Your task to perform on an android device: Show me popular videos on Youtube Image 0: 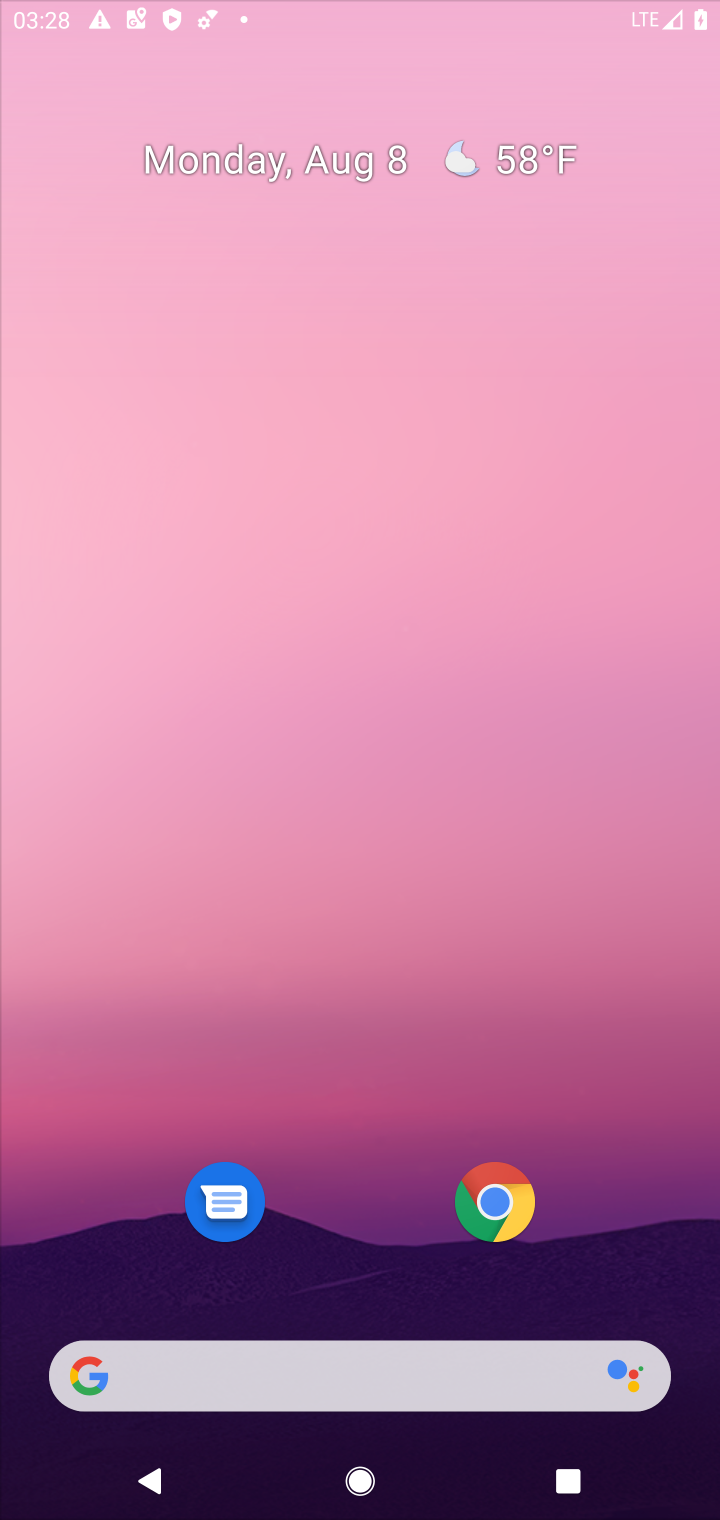
Step 0: press back button
Your task to perform on an android device: Show me popular videos on Youtube Image 1: 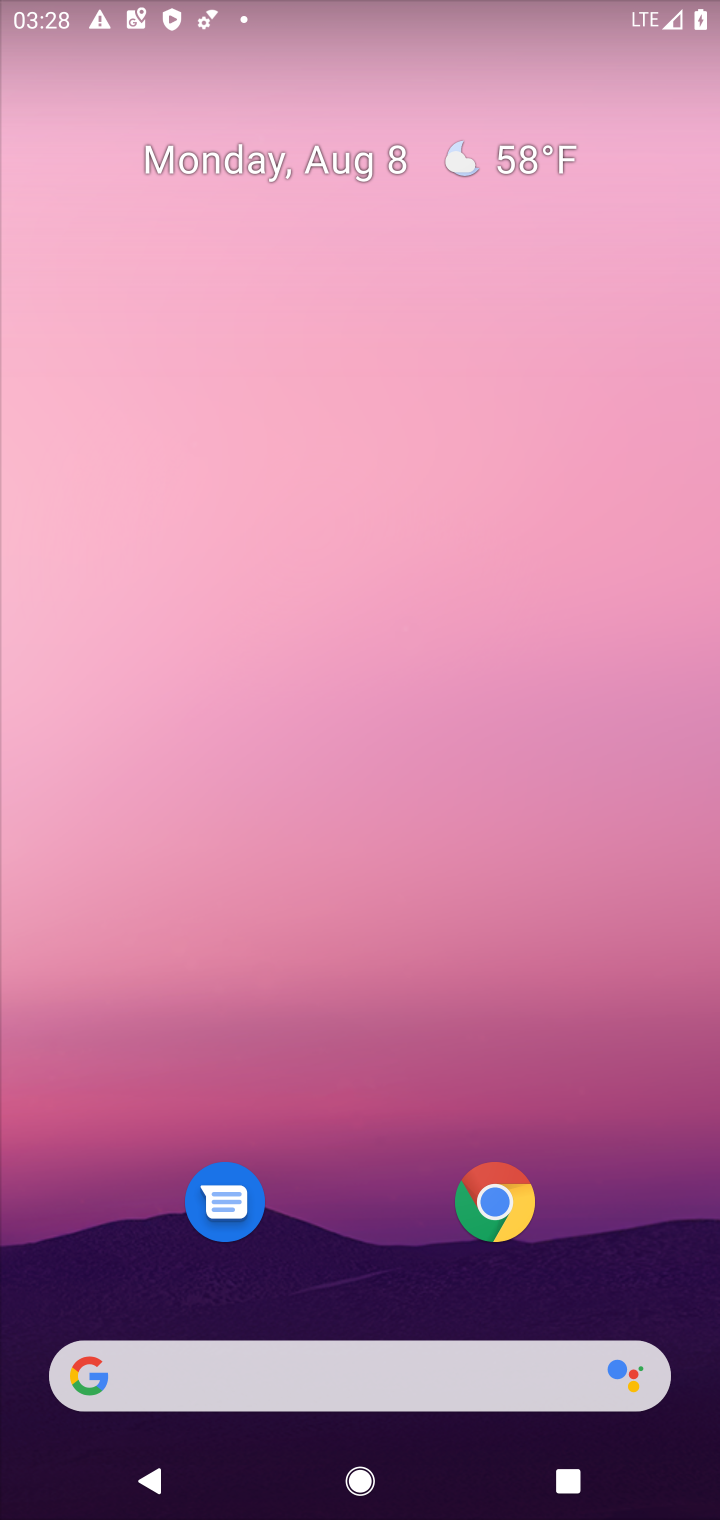
Step 1: click (314, 172)
Your task to perform on an android device: Show me popular videos on Youtube Image 2: 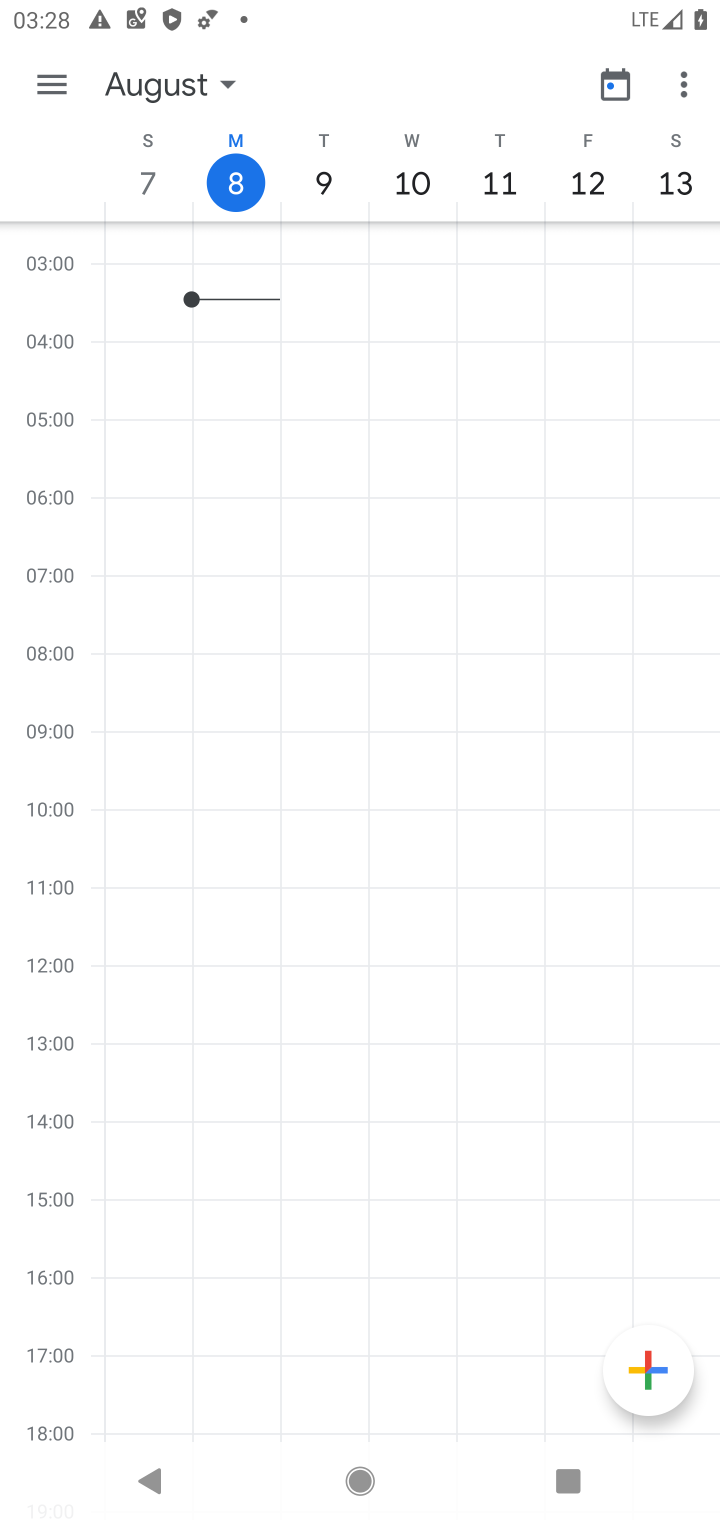
Step 2: click (336, 289)
Your task to perform on an android device: Show me popular videos on Youtube Image 3: 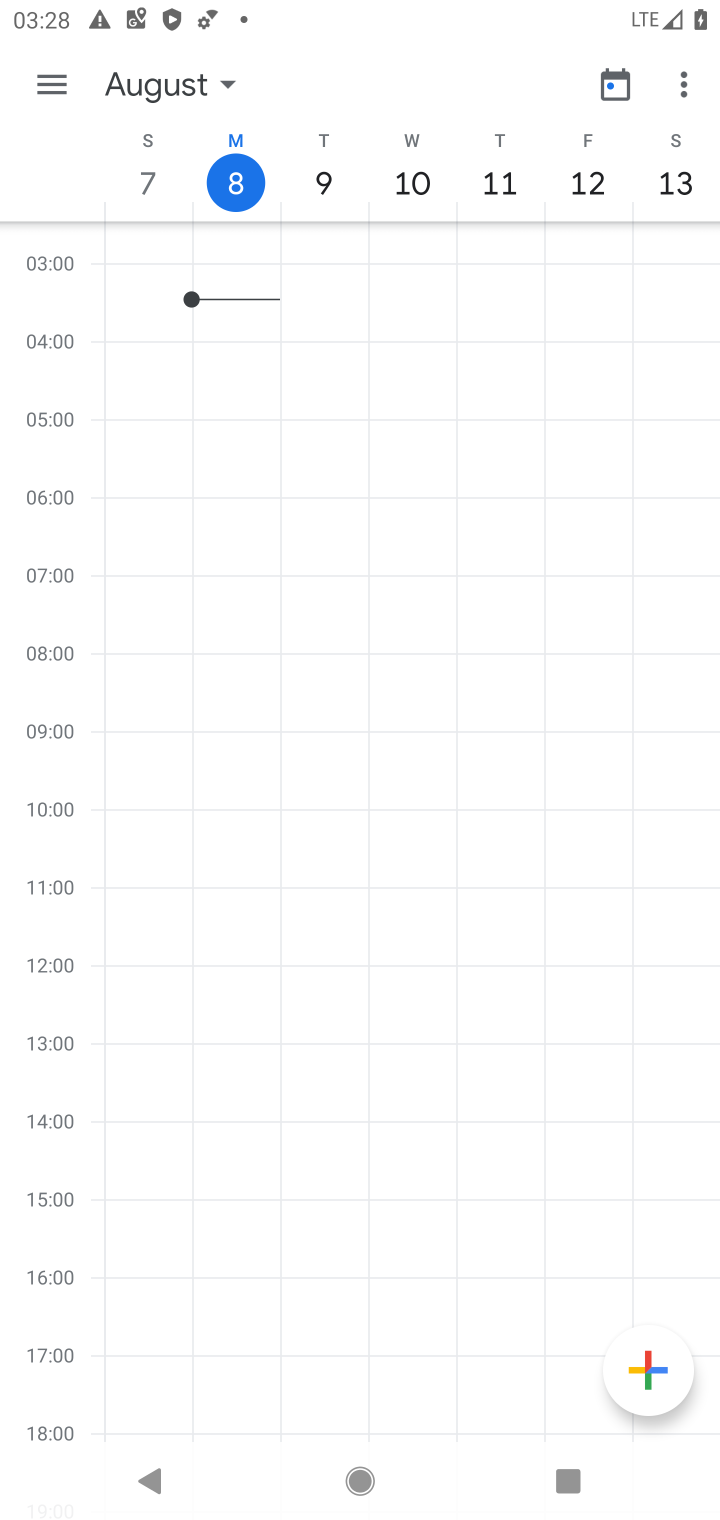
Step 3: press home button
Your task to perform on an android device: Show me popular videos on Youtube Image 4: 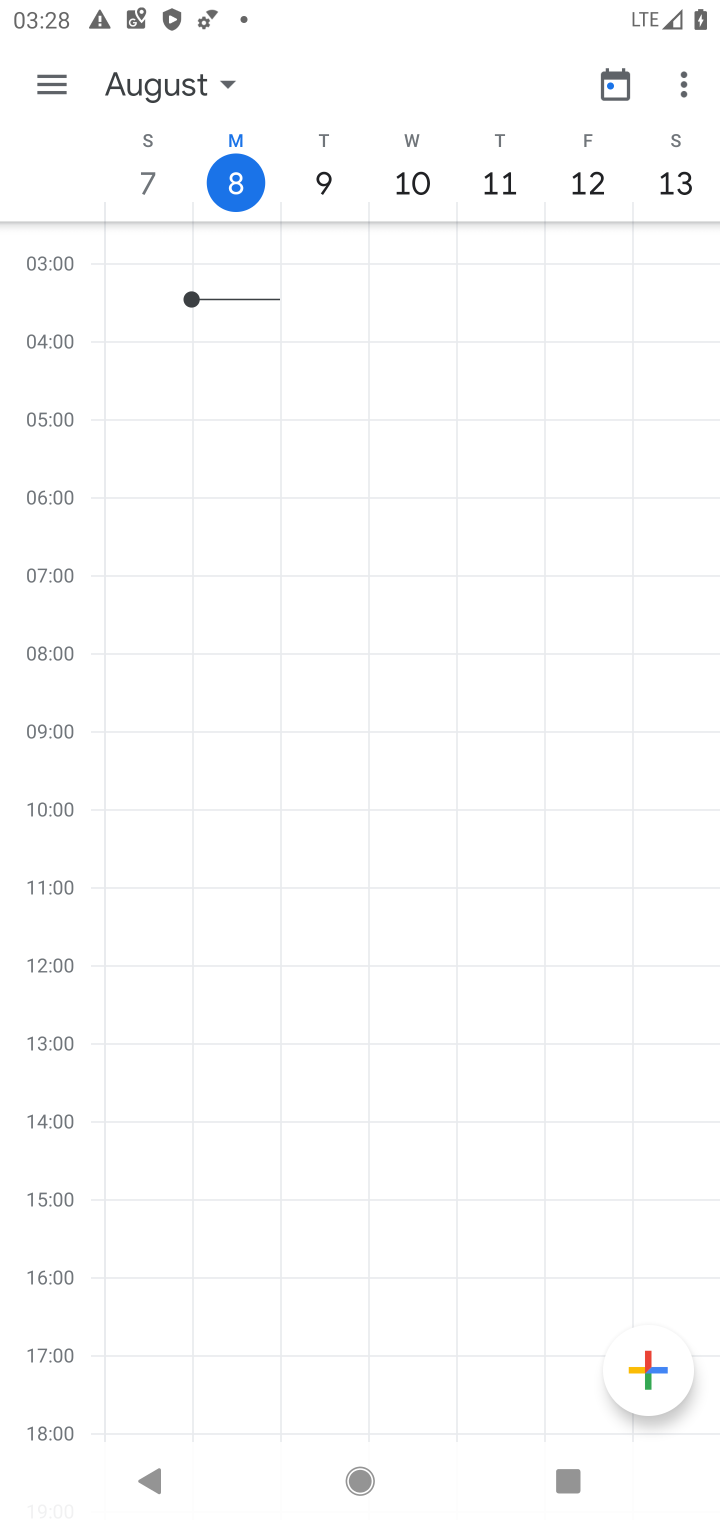
Step 4: click (577, 1062)
Your task to perform on an android device: Show me popular videos on Youtube Image 5: 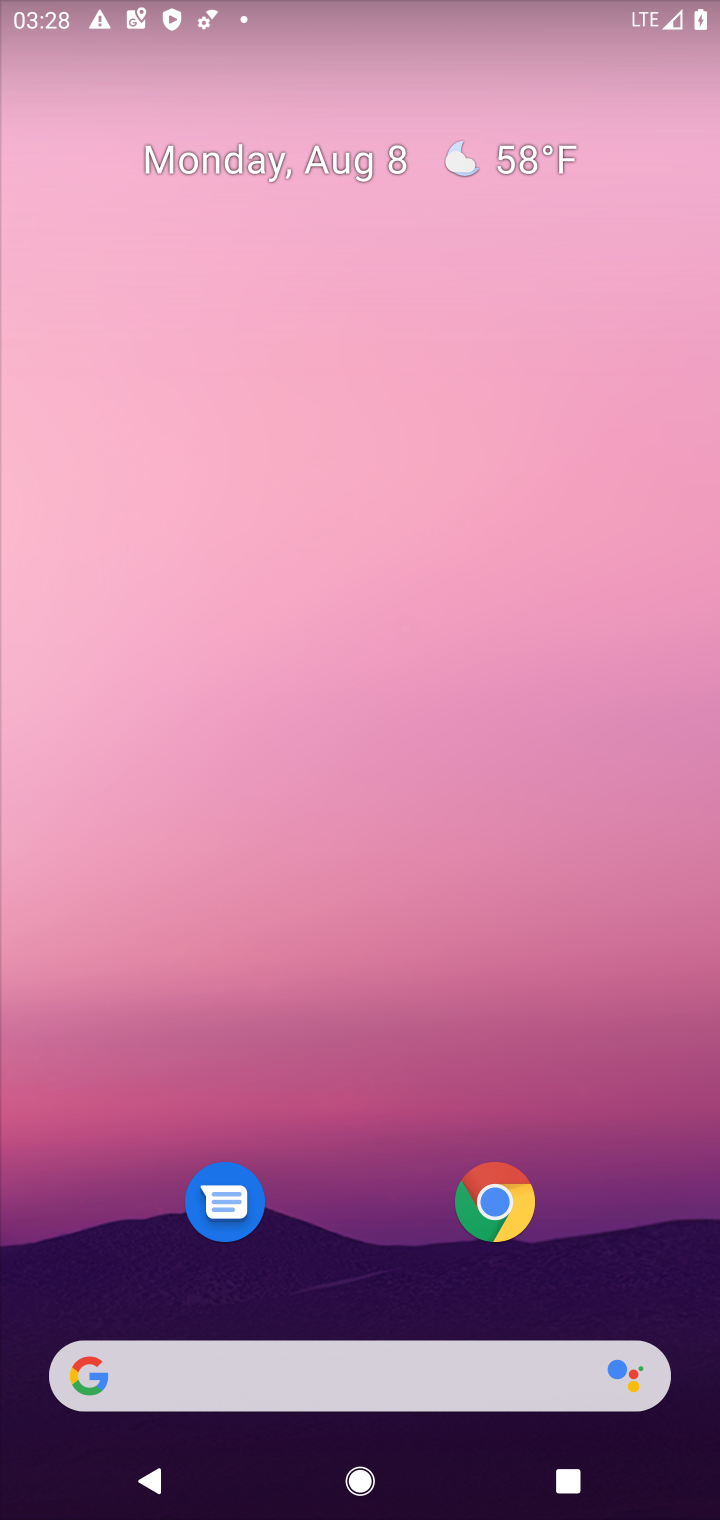
Step 5: drag from (362, 1046) to (369, 108)
Your task to perform on an android device: Show me popular videos on Youtube Image 6: 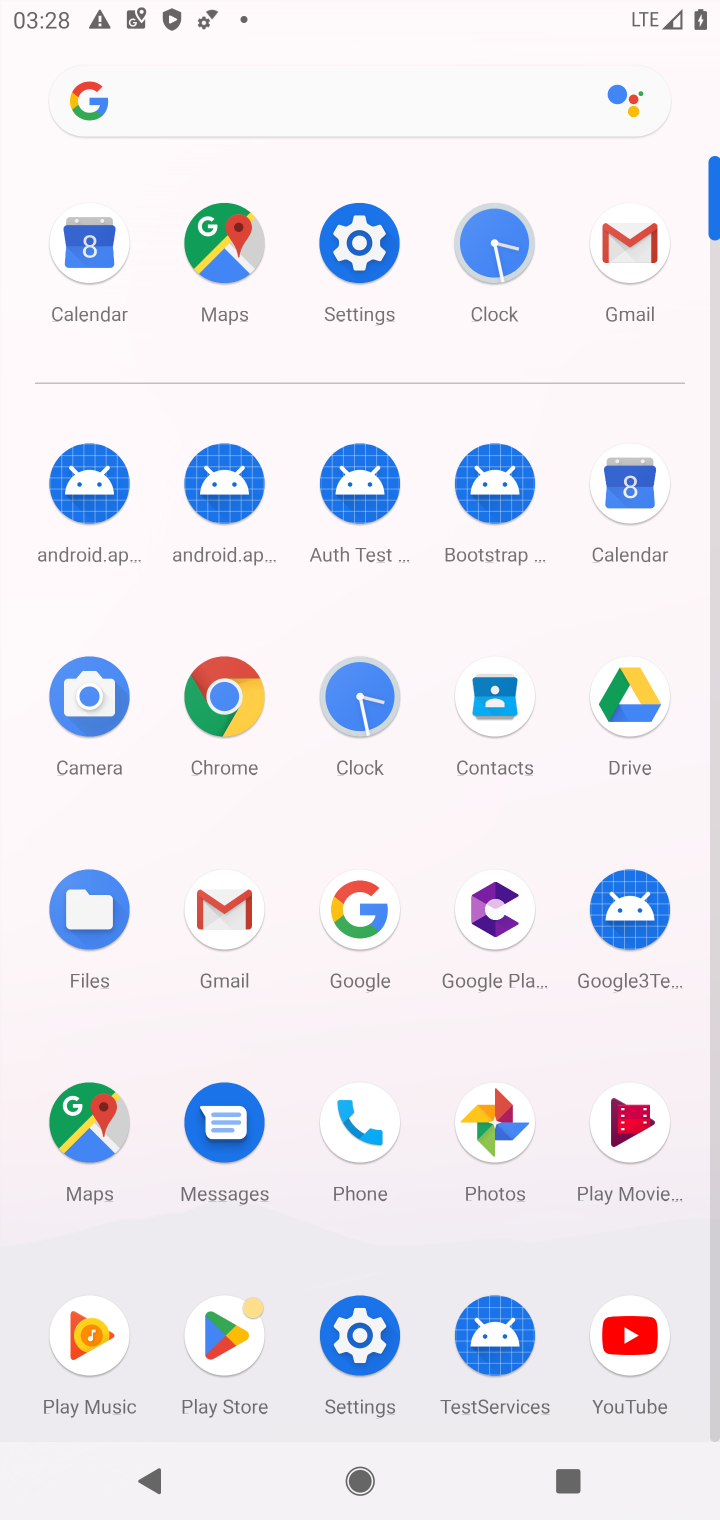
Step 6: click (634, 1338)
Your task to perform on an android device: Show me popular videos on Youtube Image 7: 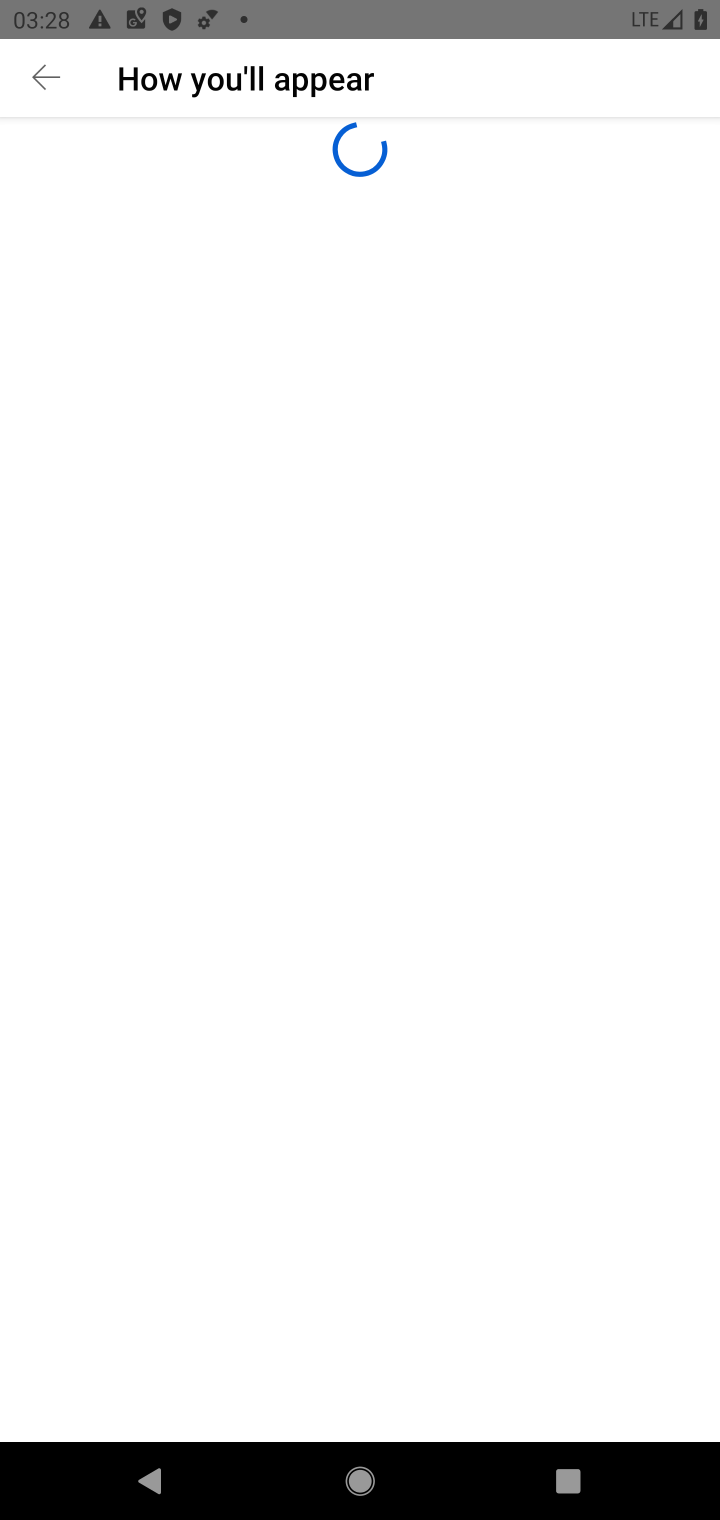
Step 7: click (41, 59)
Your task to perform on an android device: Show me popular videos on Youtube Image 8: 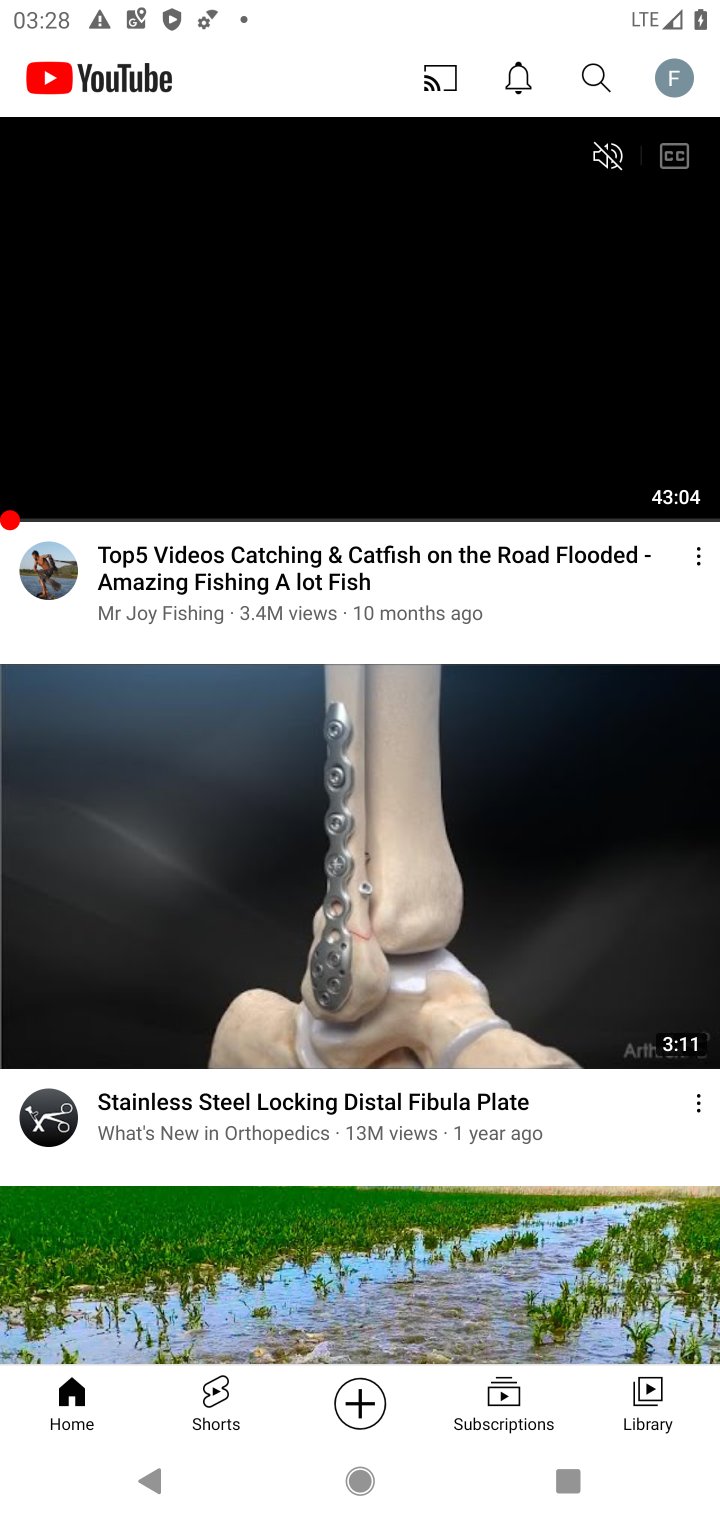
Step 8: task complete